Your task to perform on an android device: Is it going to rain tomorrow? Image 0: 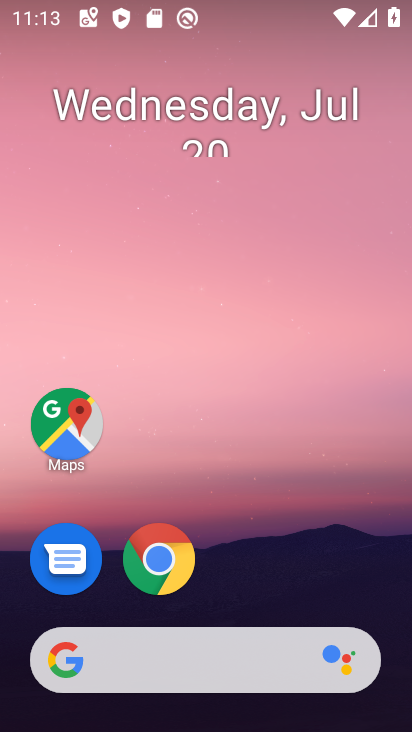
Step 0: drag from (275, 613) to (289, 112)
Your task to perform on an android device: Is it going to rain tomorrow? Image 1: 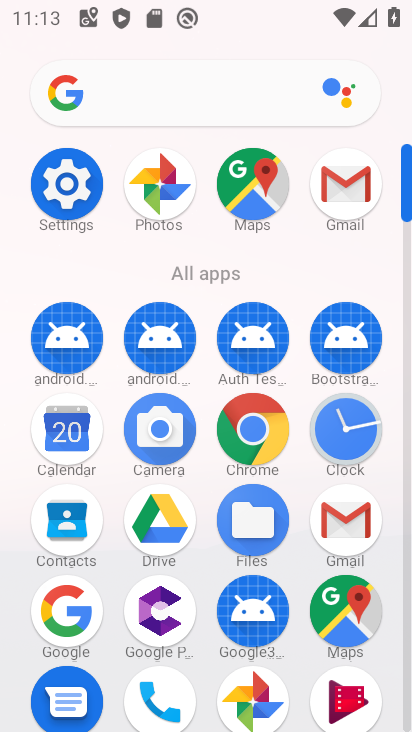
Step 1: click (58, 605)
Your task to perform on an android device: Is it going to rain tomorrow? Image 2: 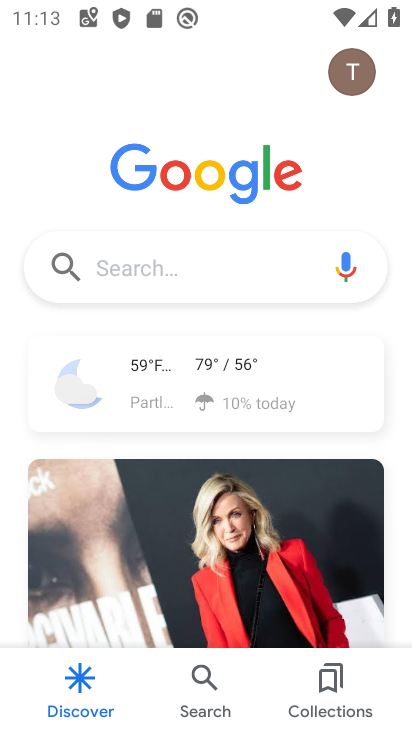
Step 2: click (188, 281)
Your task to perform on an android device: Is it going to rain tomorrow? Image 3: 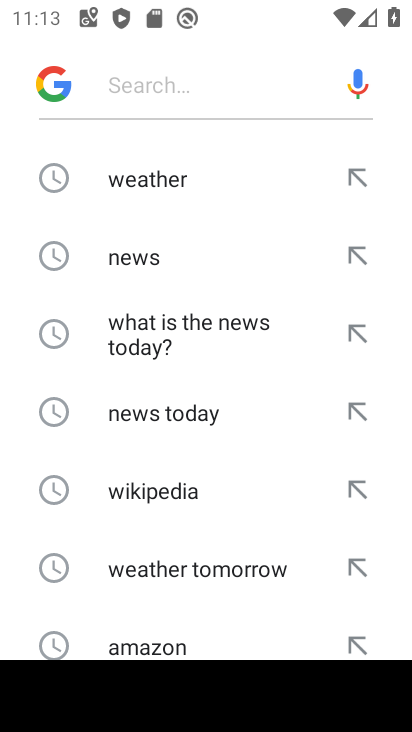
Step 3: click (156, 171)
Your task to perform on an android device: Is it going to rain tomorrow? Image 4: 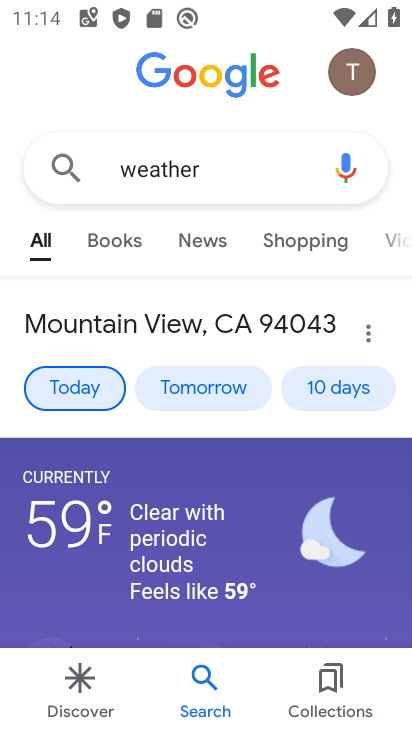
Step 4: click (230, 393)
Your task to perform on an android device: Is it going to rain tomorrow? Image 5: 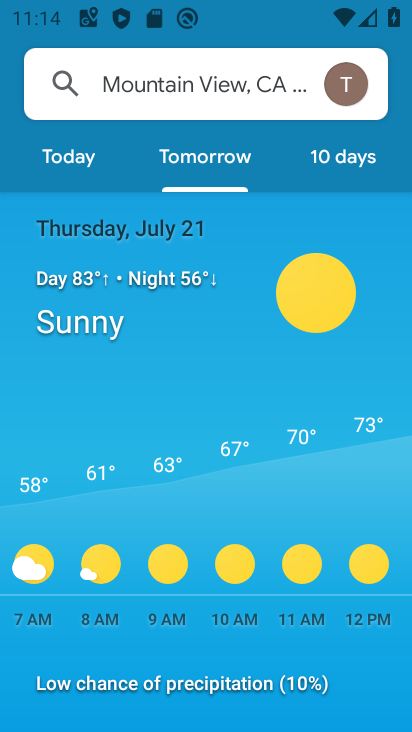
Step 5: task complete